Your task to perform on an android device: install app "Airtel Thanks" Image 0: 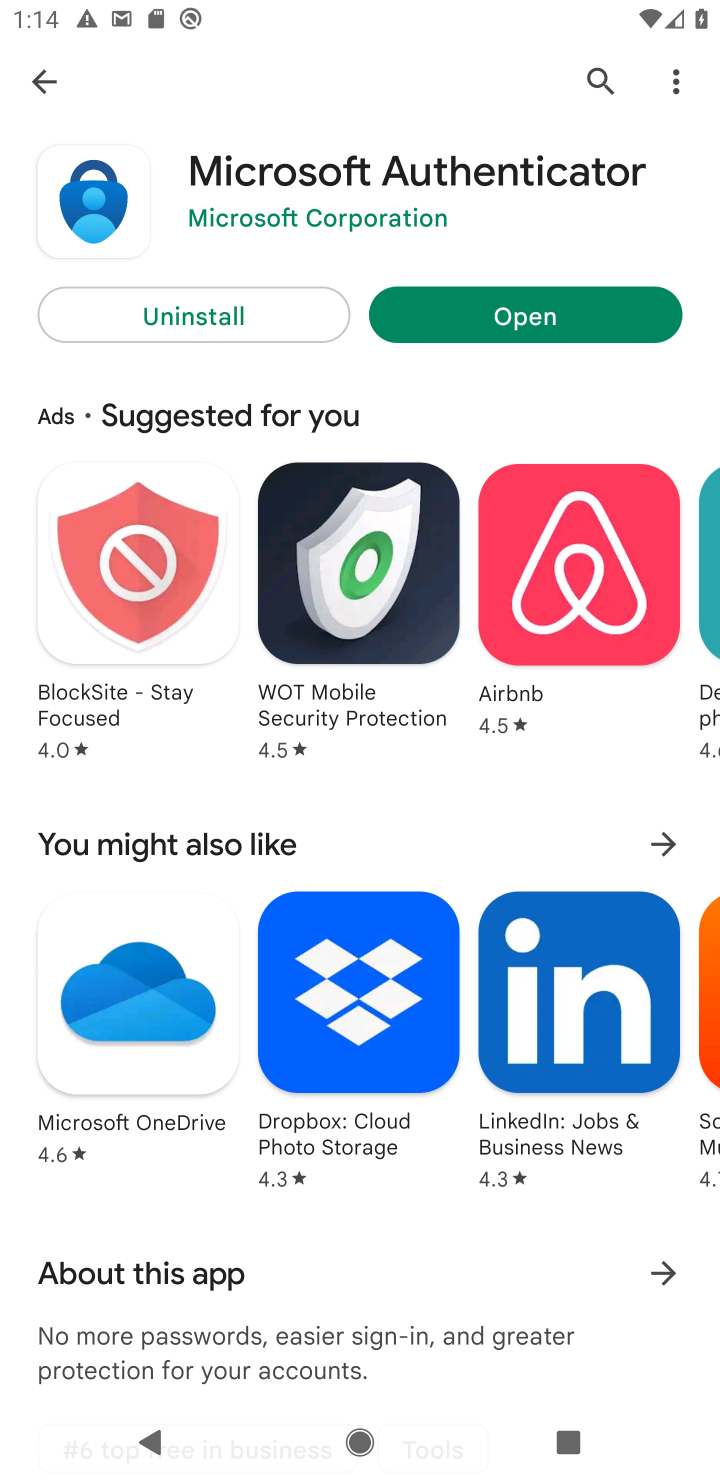
Step 0: click (590, 83)
Your task to perform on an android device: install app "Airtel Thanks" Image 1: 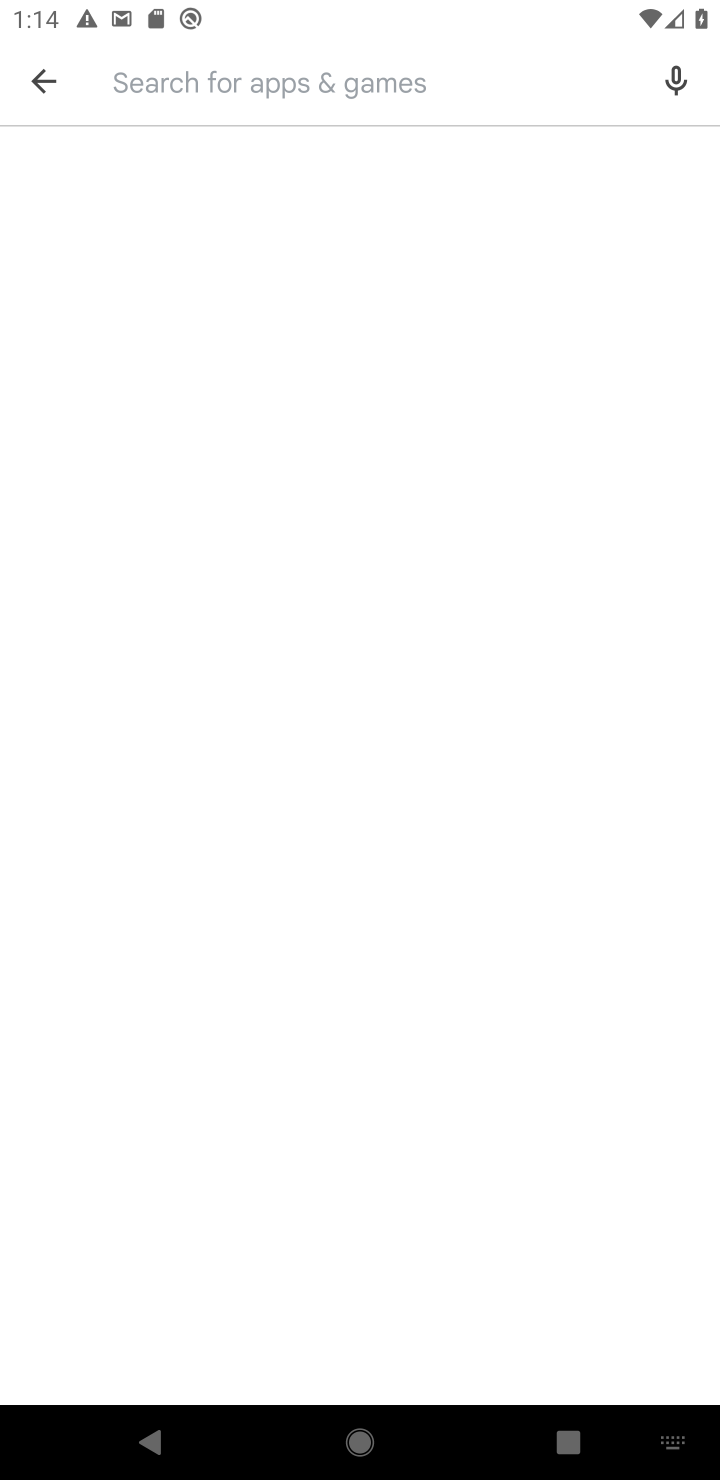
Step 1: type "airtel tha ks"
Your task to perform on an android device: install app "Airtel Thanks" Image 2: 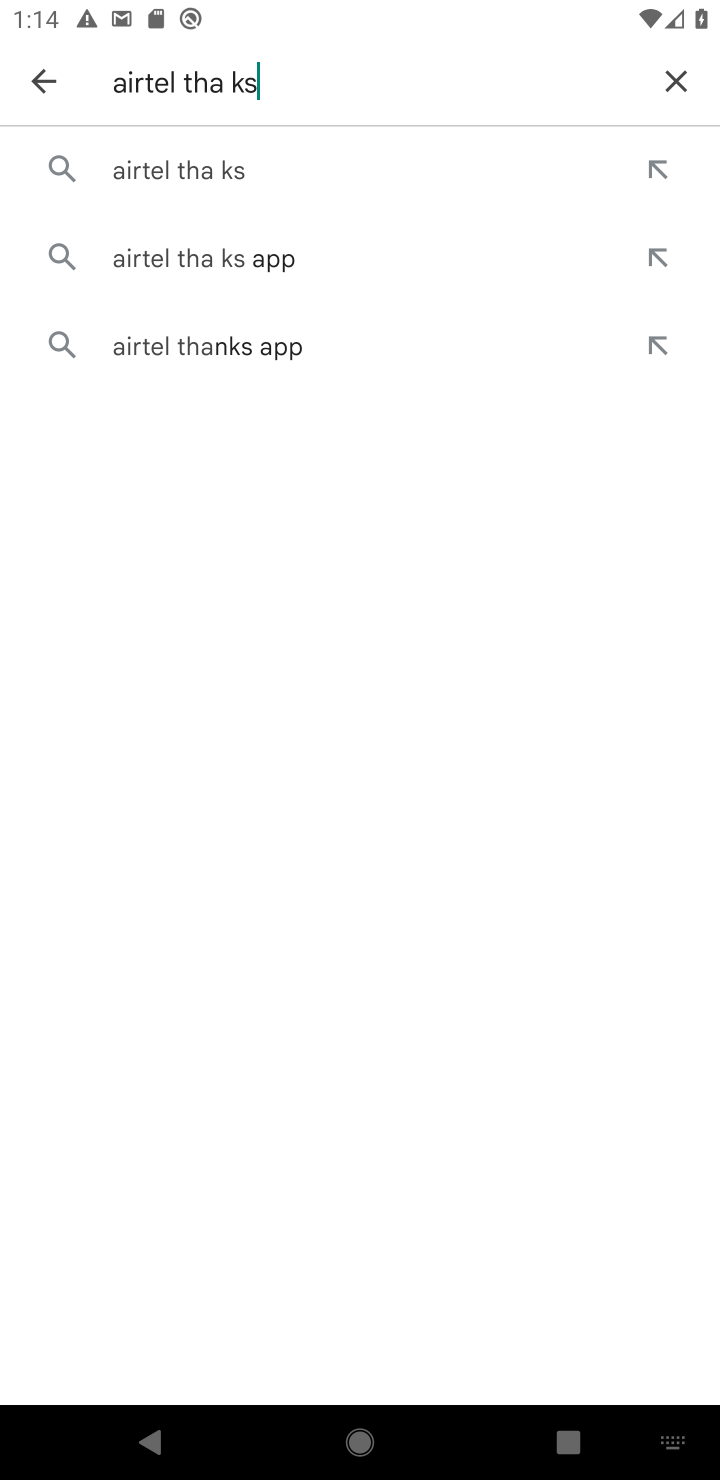
Step 2: click (684, 95)
Your task to perform on an android device: install app "Airtel Thanks" Image 3: 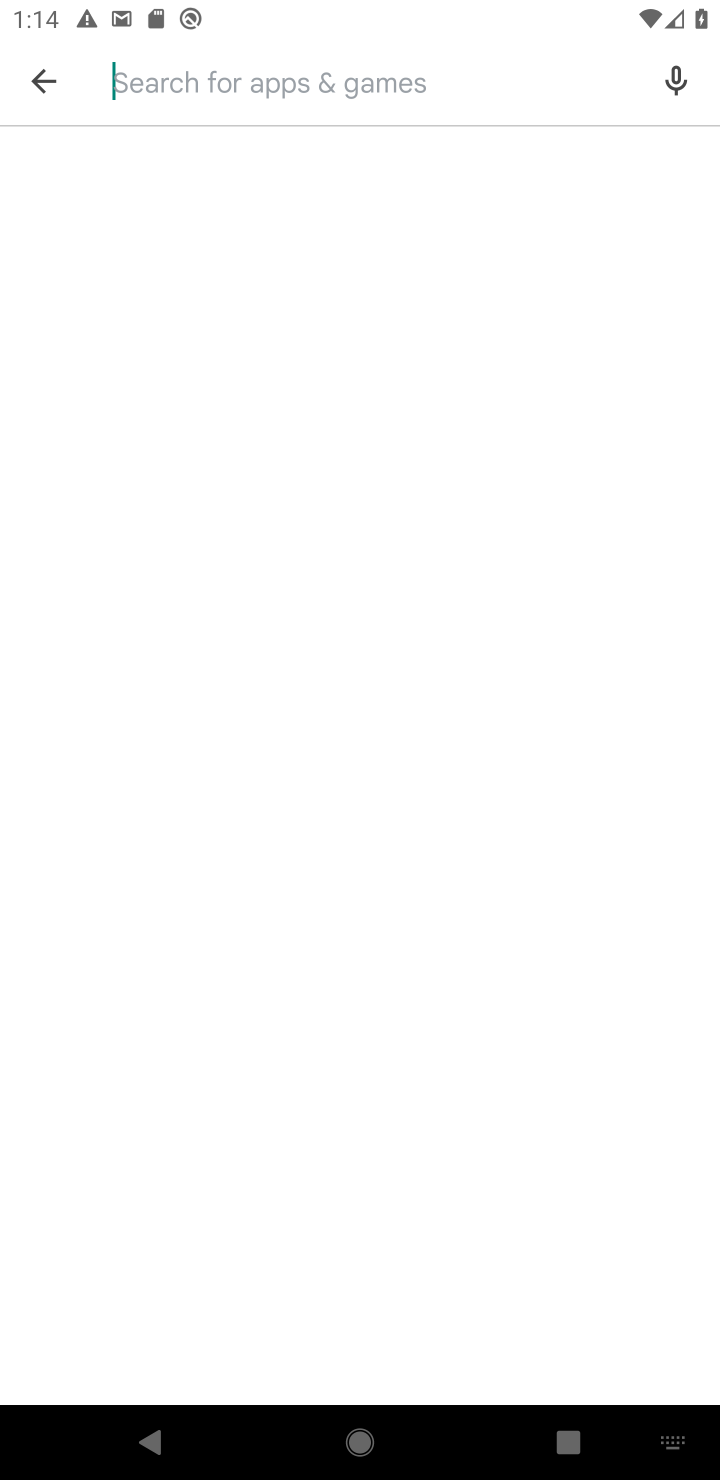
Step 3: type "airtel thankks"
Your task to perform on an android device: install app "Airtel Thanks" Image 4: 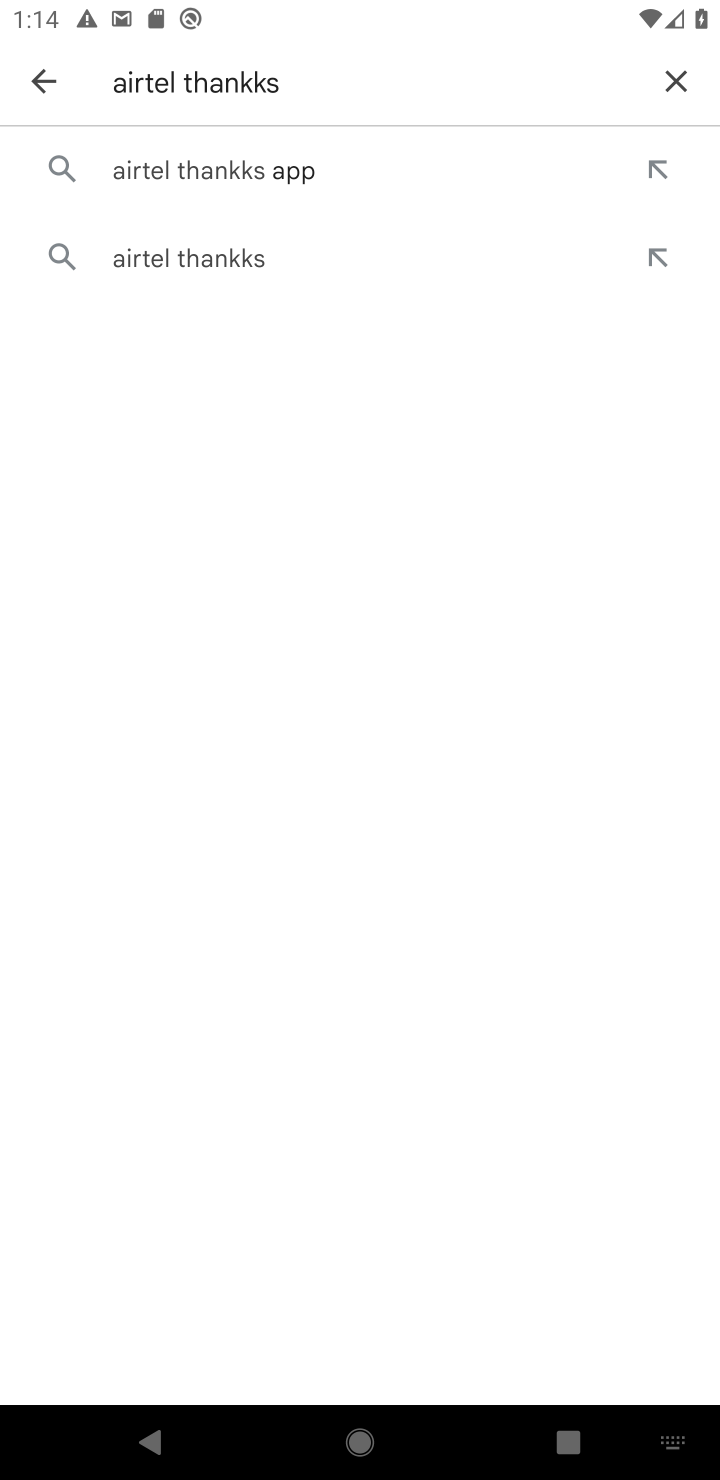
Step 4: click (282, 183)
Your task to perform on an android device: install app "Airtel Thanks" Image 5: 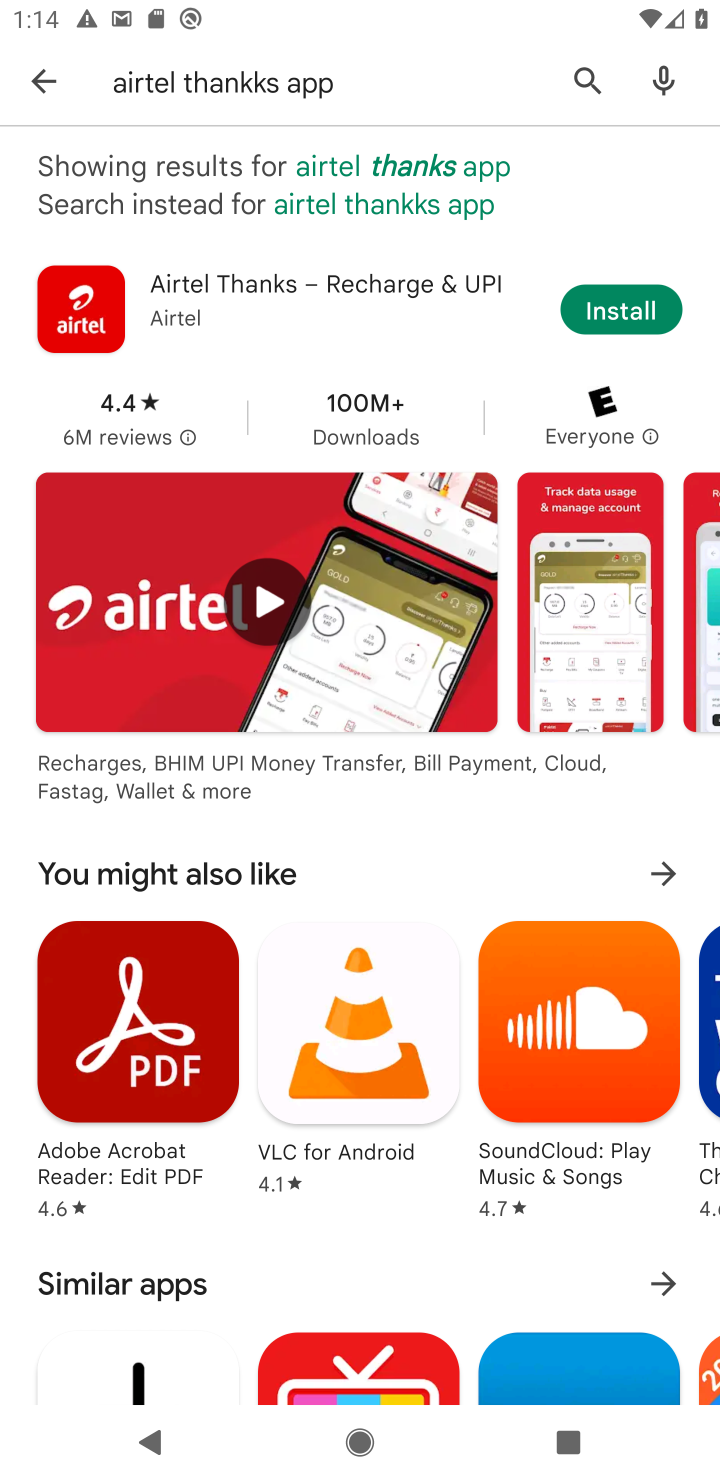
Step 5: click (611, 315)
Your task to perform on an android device: install app "Airtel Thanks" Image 6: 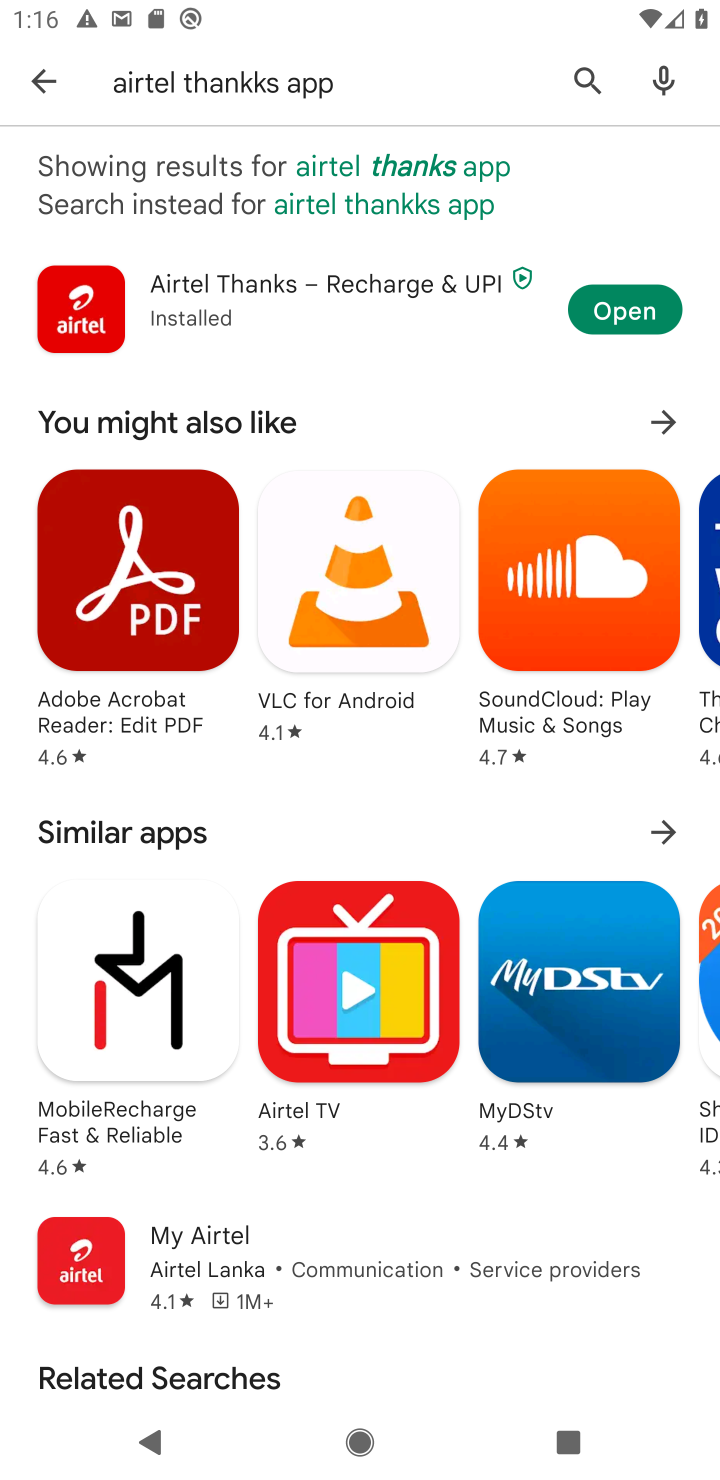
Step 6: task complete